Your task to perform on an android device: What's the weather going to be tomorrow? Image 0: 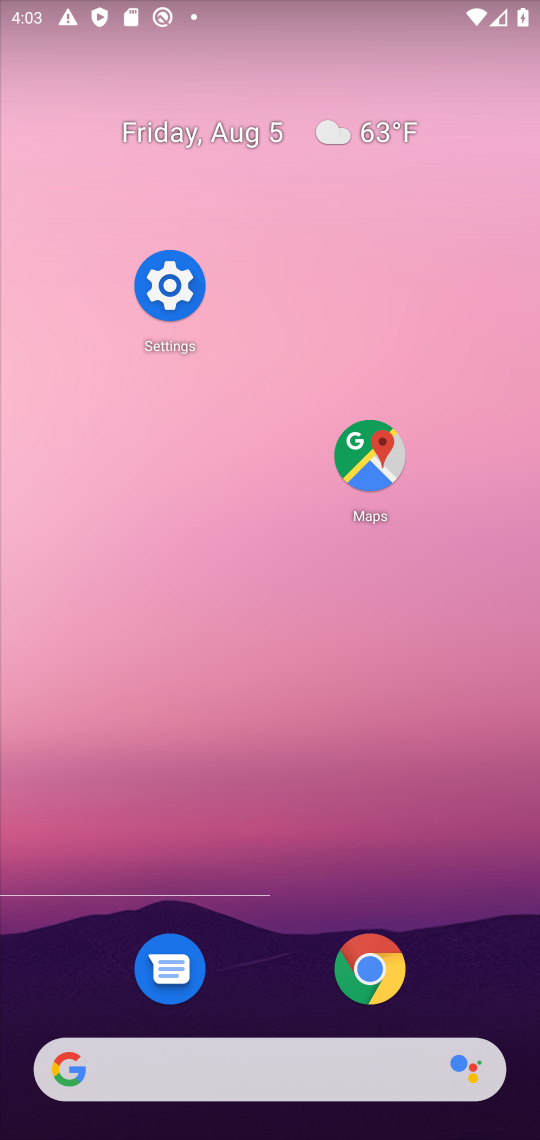
Step 0: drag from (295, 637) to (290, 296)
Your task to perform on an android device: What's the weather going to be tomorrow? Image 1: 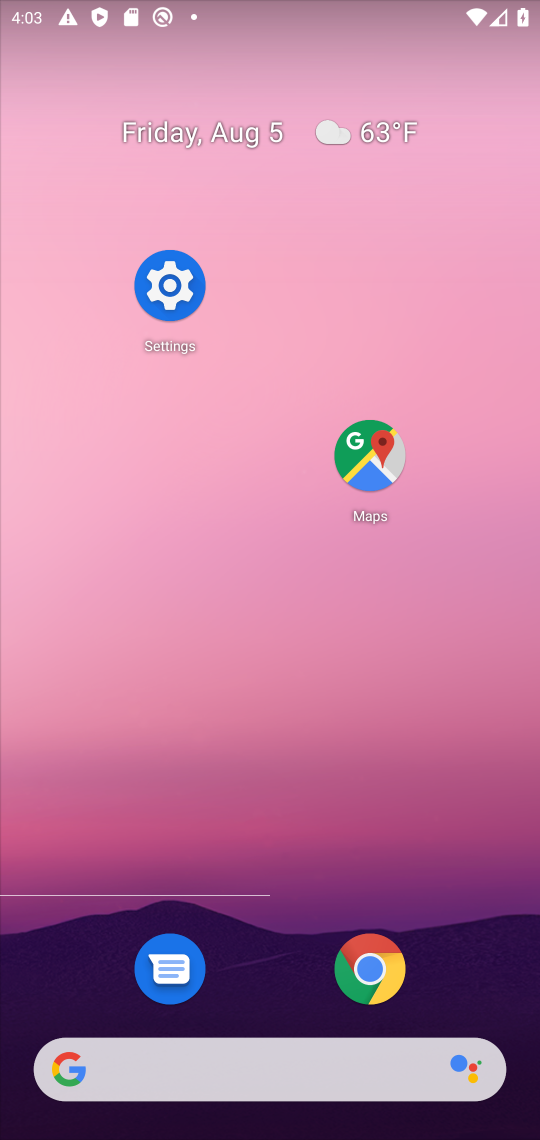
Step 1: drag from (236, 671) to (267, 153)
Your task to perform on an android device: What's the weather going to be tomorrow? Image 2: 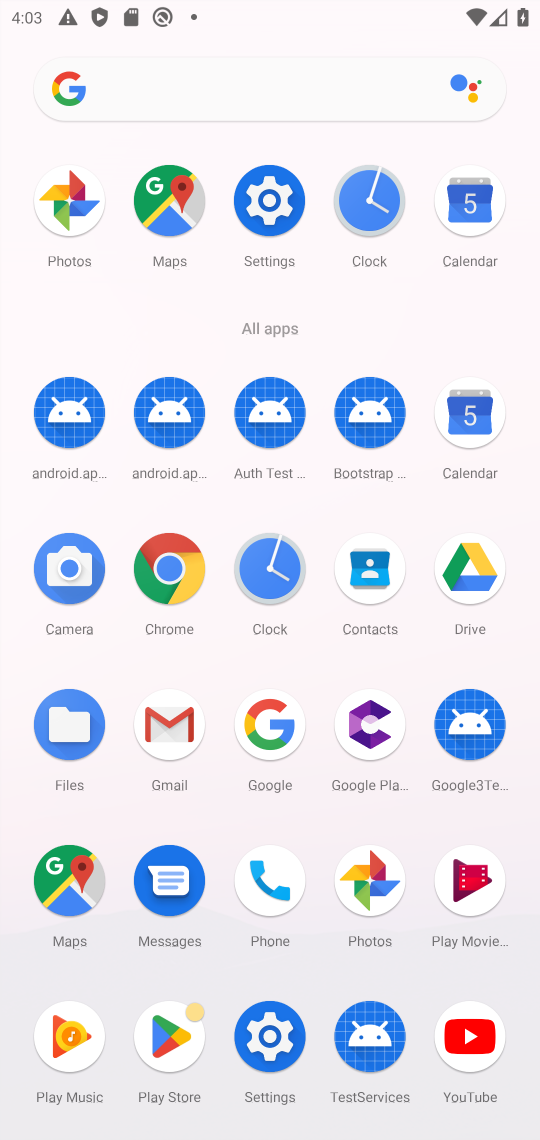
Step 2: click (276, 719)
Your task to perform on an android device: What's the weather going to be tomorrow? Image 3: 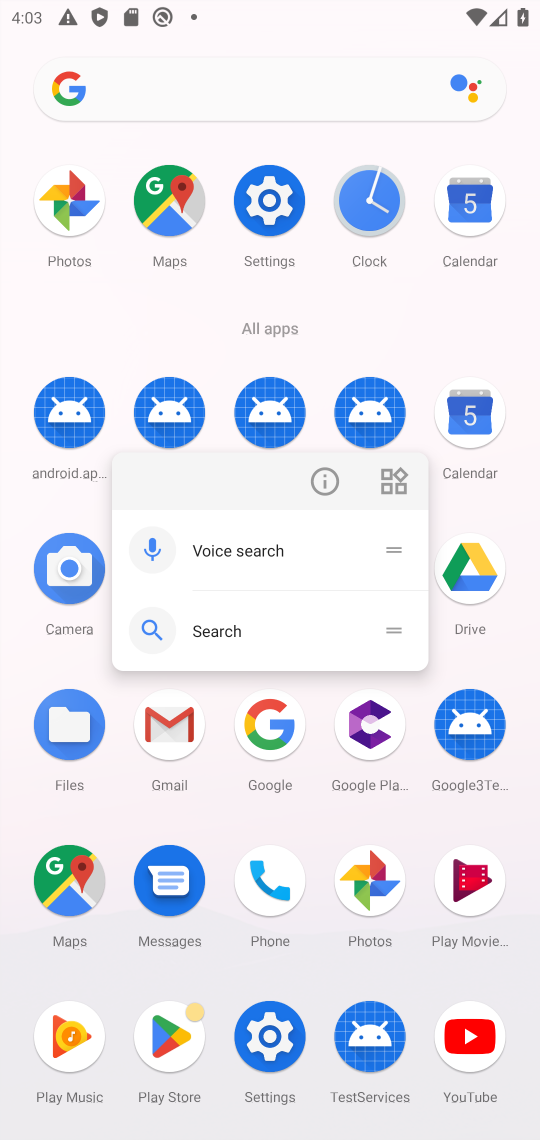
Step 3: click (253, 711)
Your task to perform on an android device: What's the weather going to be tomorrow? Image 4: 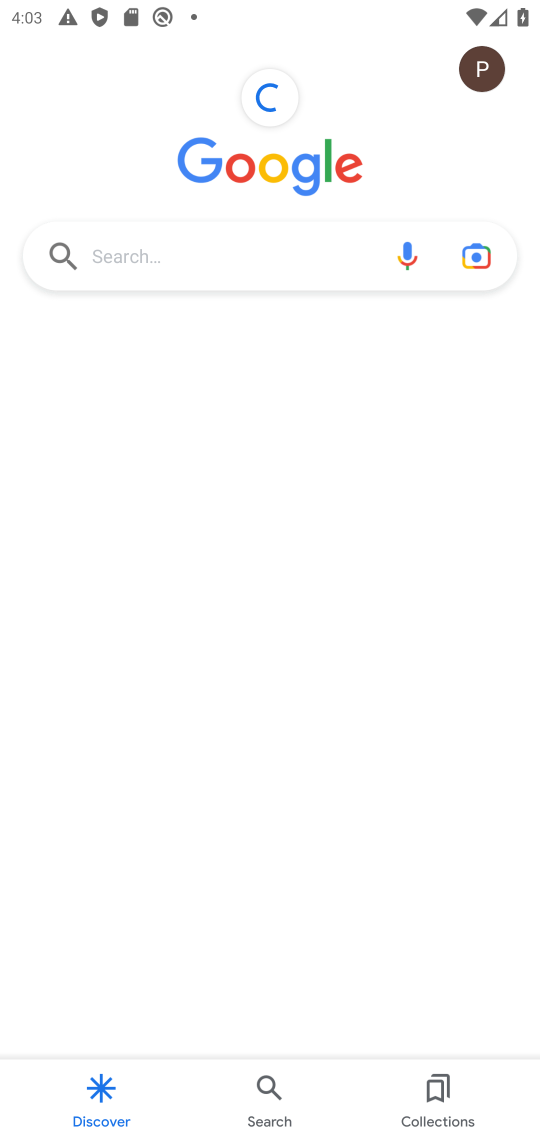
Step 4: click (212, 268)
Your task to perform on an android device: What's the weather going to be tomorrow? Image 5: 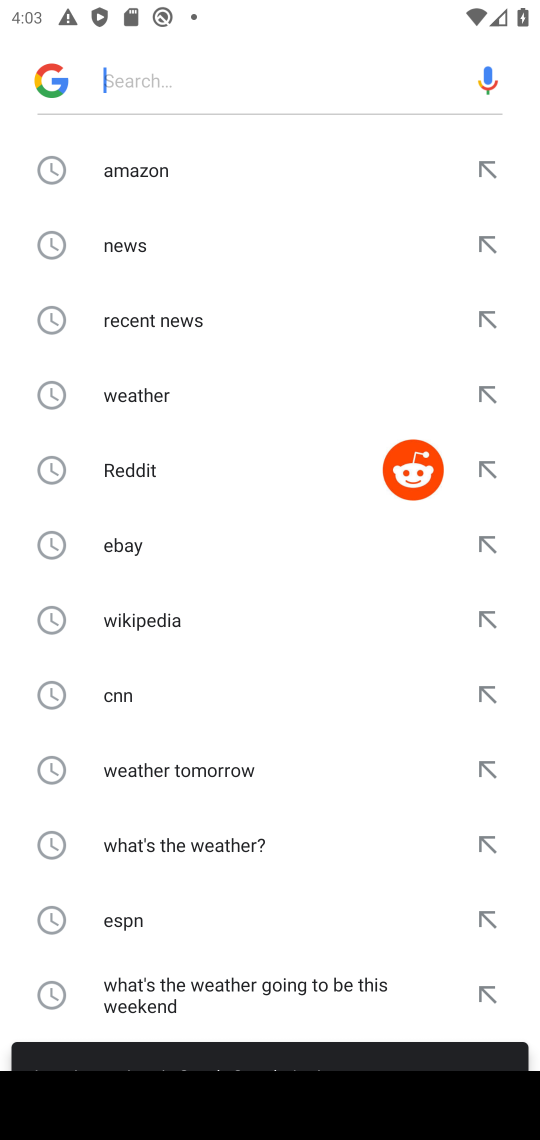
Step 5: click (118, 363)
Your task to perform on an android device: What's the weather going to be tomorrow? Image 6: 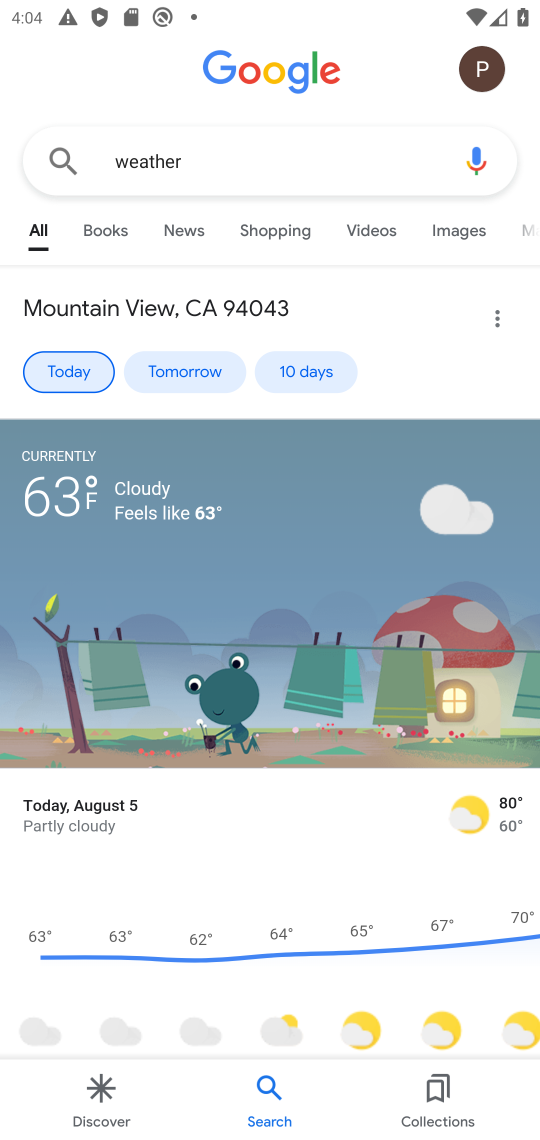
Step 6: click (218, 371)
Your task to perform on an android device: What's the weather going to be tomorrow? Image 7: 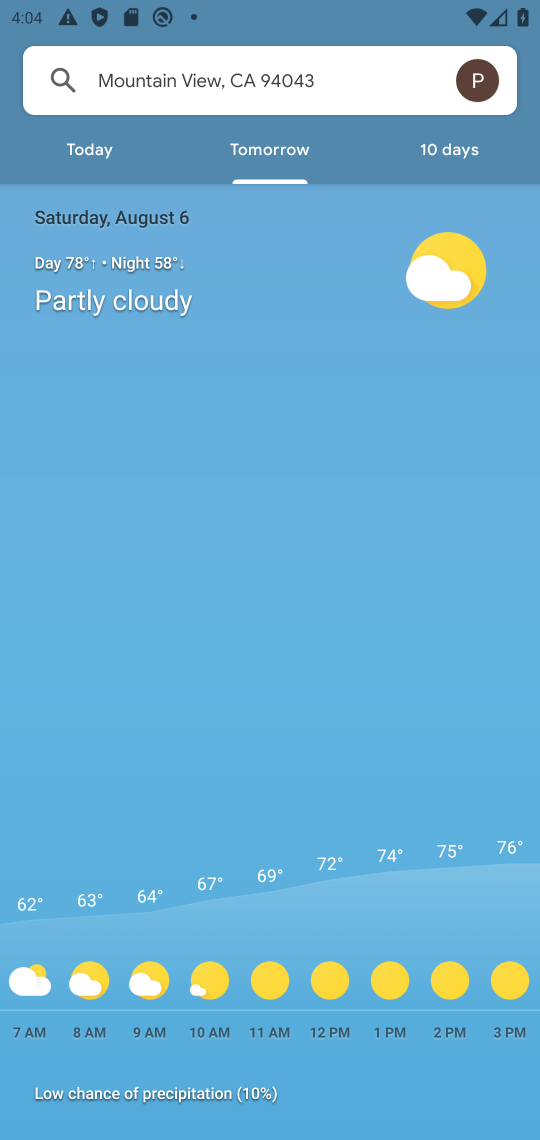
Step 7: task complete